Your task to perform on an android device: find photos in the google photos app Image 0: 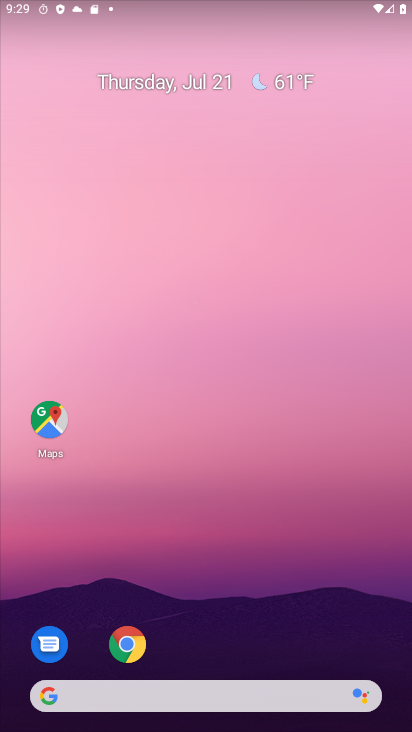
Step 0: drag from (169, 597) to (121, 195)
Your task to perform on an android device: find photos in the google photos app Image 1: 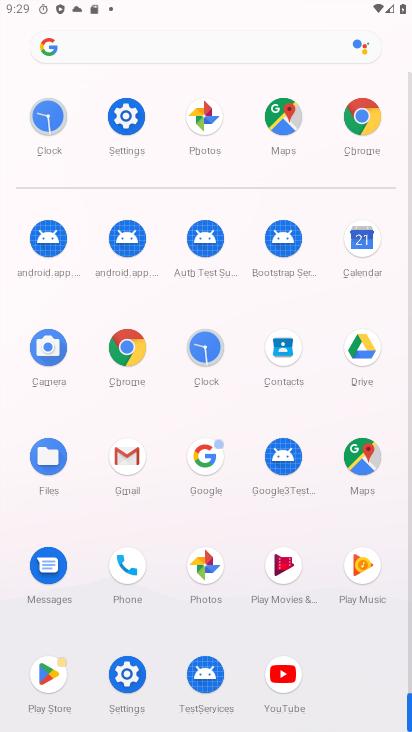
Step 1: click (199, 564)
Your task to perform on an android device: find photos in the google photos app Image 2: 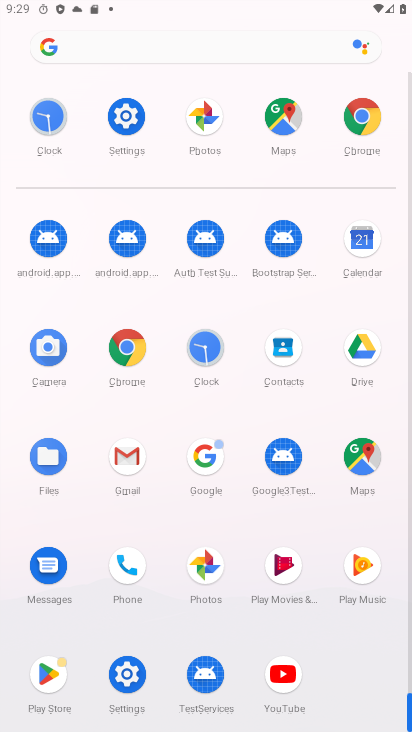
Step 2: click (197, 563)
Your task to perform on an android device: find photos in the google photos app Image 3: 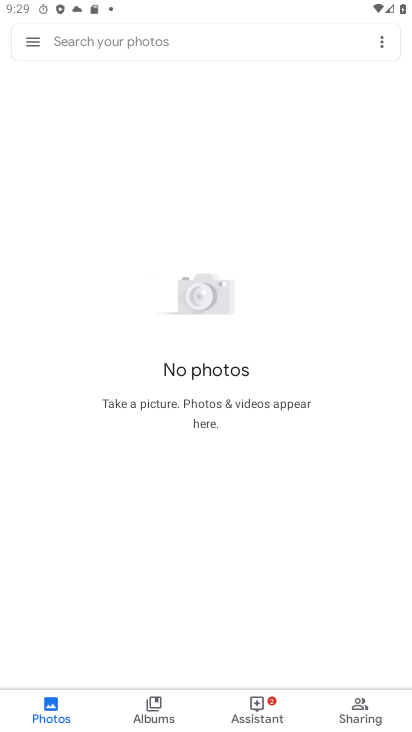
Step 3: task complete